Your task to perform on an android device: Open sound settings Image 0: 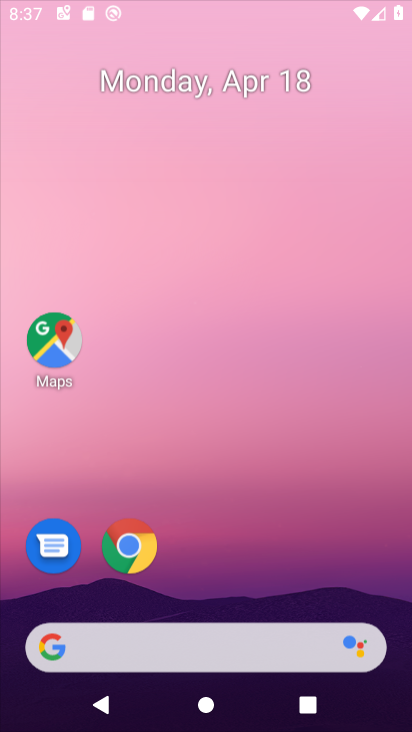
Step 0: click (209, 4)
Your task to perform on an android device: Open sound settings Image 1: 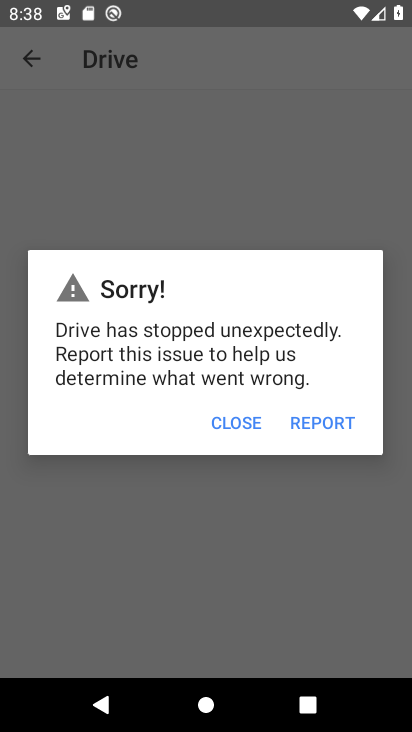
Step 1: press home button
Your task to perform on an android device: Open sound settings Image 2: 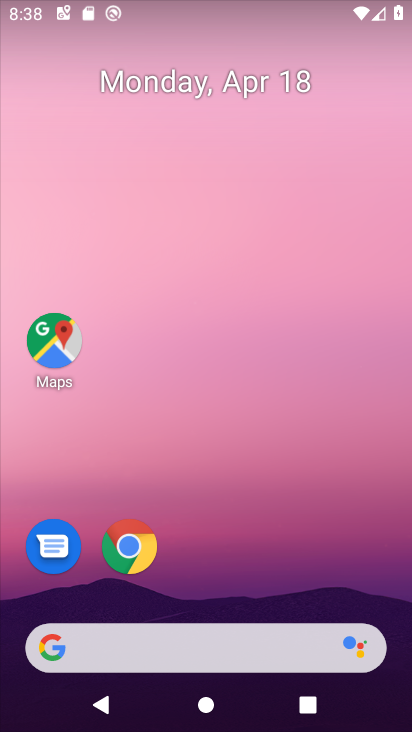
Step 2: drag from (286, 589) to (247, 205)
Your task to perform on an android device: Open sound settings Image 3: 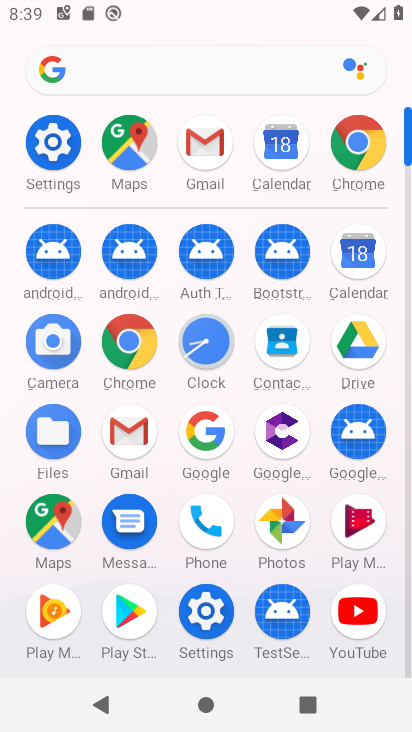
Step 3: click (58, 151)
Your task to perform on an android device: Open sound settings Image 4: 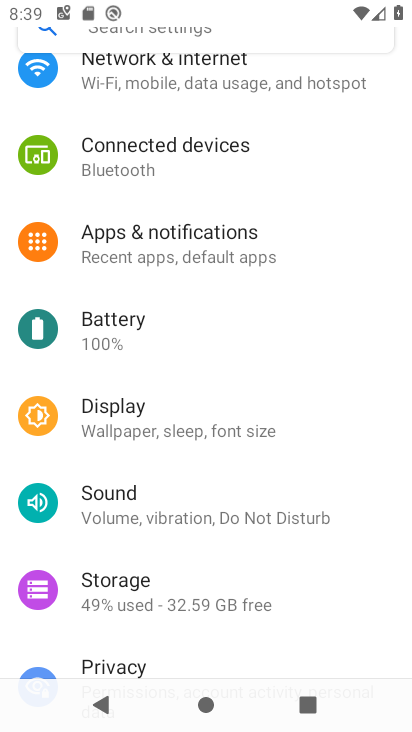
Step 4: click (147, 502)
Your task to perform on an android device: Open sound settings Image 5: 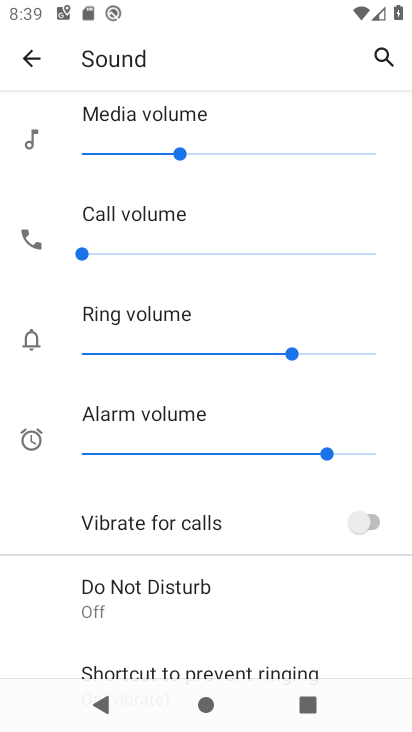
Step 5: task complete